Your task to perform on an android device: Go to location settings Image 0: 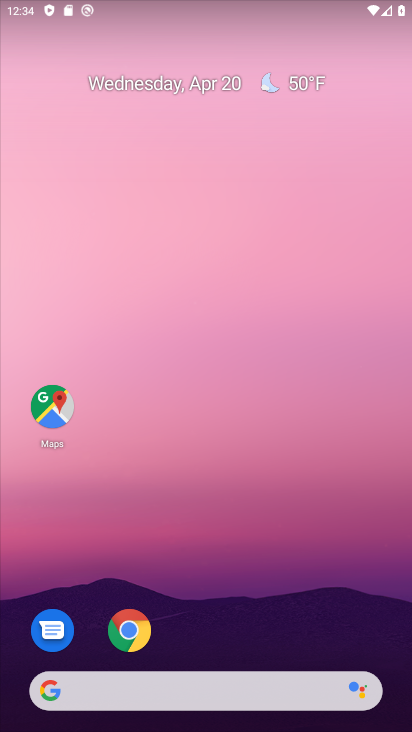
Step 0: press home button
Your task to perform on an android device: Go to location settings Image 1: 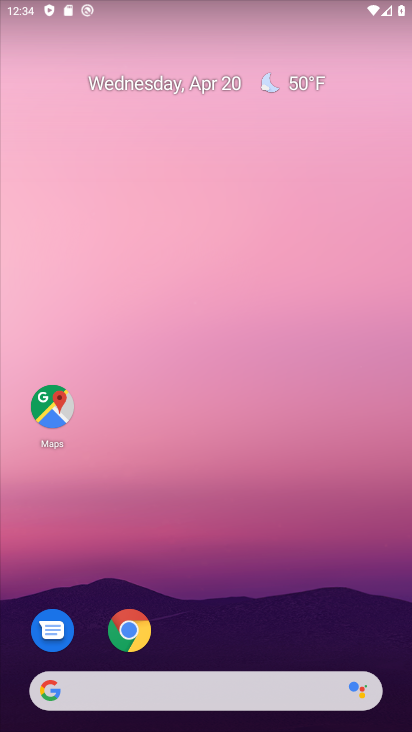
Step 1: drag from (248, 470) to (262, 102)
Your task to perform on an android device: Go to location settings Image 2: 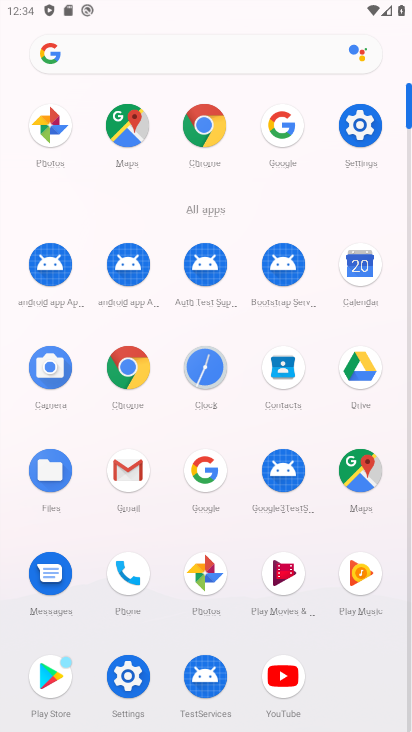
Step 2: click (354, 129)
Your task to perform on an android device: Go to location settings Image 3: 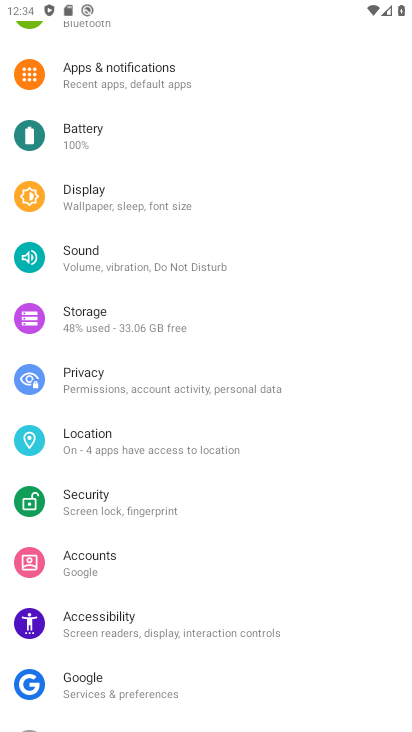
Step 3: click (111, 437)
Your task to perform on an android device: Go to location settings Image 4: 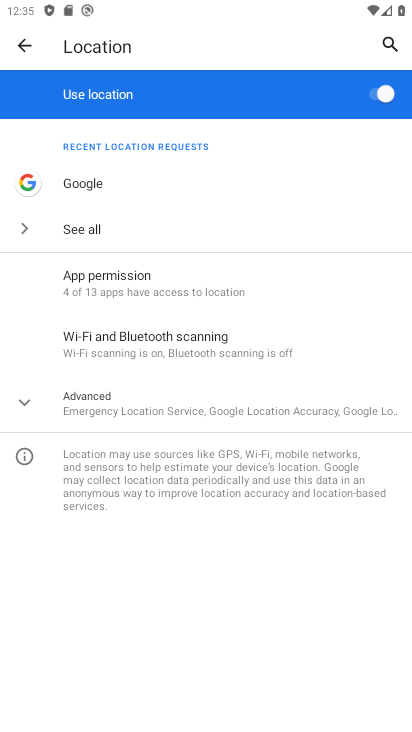
Step 4: task complete